Your task to perform on an android device: allow cookies in the chrome app Image 0: 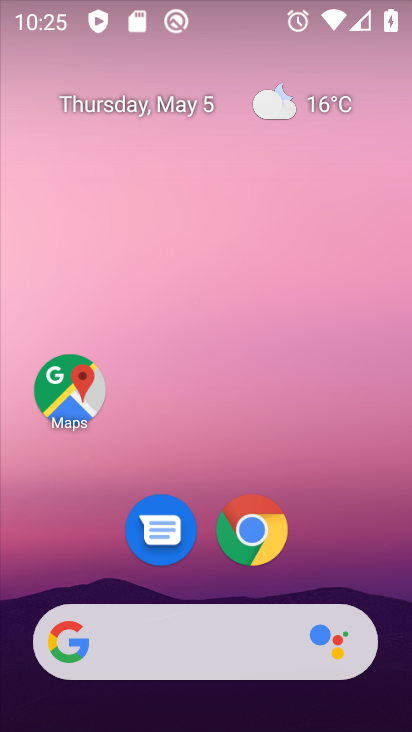
Step 0: drag from (298, 546) to (285, 50)
Your task to perform on an android device: allow cookies in the chrome app Image 1: 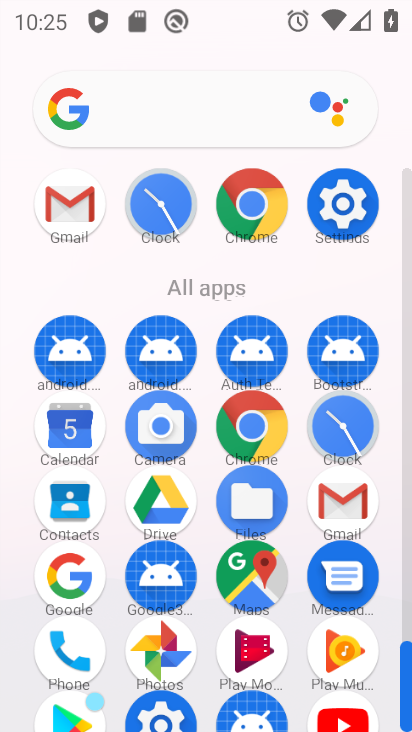
Step 1: click (247, 214)
Your task to perform on an android device: allow cookies in the chrome app Image 2: 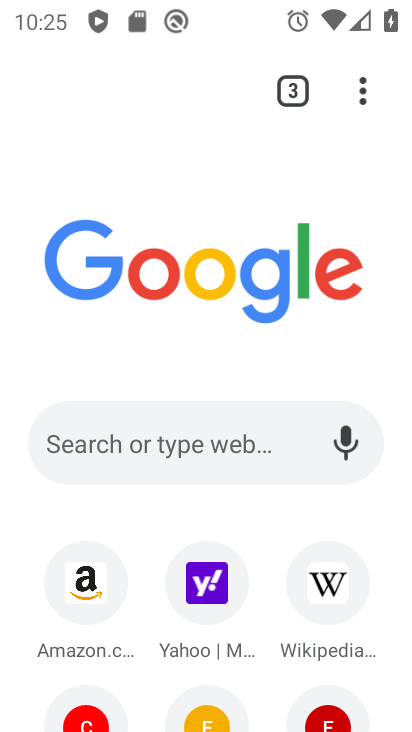
Step 2: drag from (377, 92) to (110, 562)
Your task to perform on an android device: allow cookies in the chrome app Image 3: 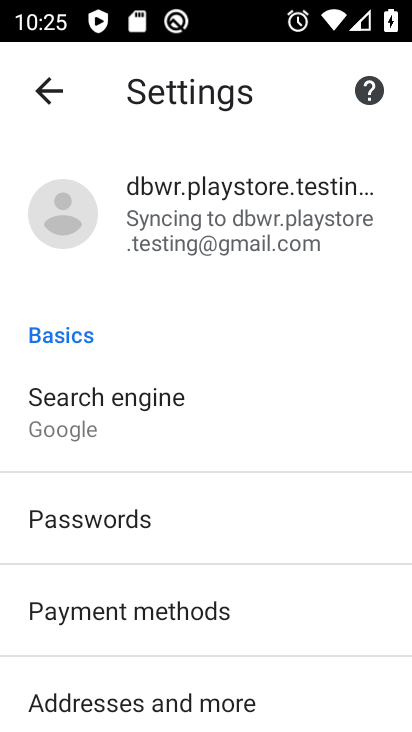
Step 3: drag from (148, 641) to (139, 293)
Your task to perform on an android device: allow cookies in the chrome app Image 4: 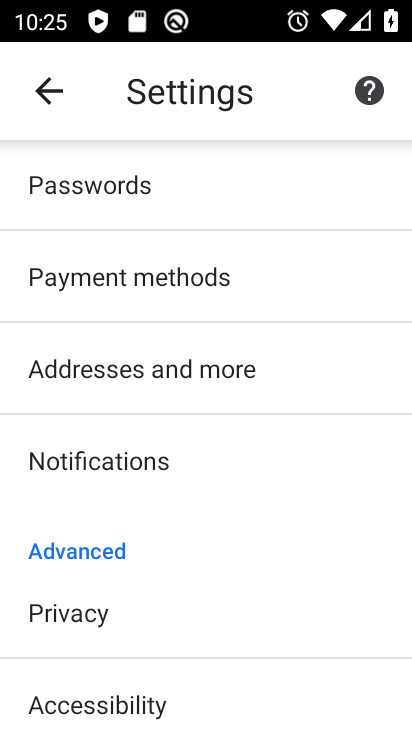
Step 4: drag from (199, 510) to (159, 163)
Your task to perform on an android device: allow cookies in the chrome app Image 5: 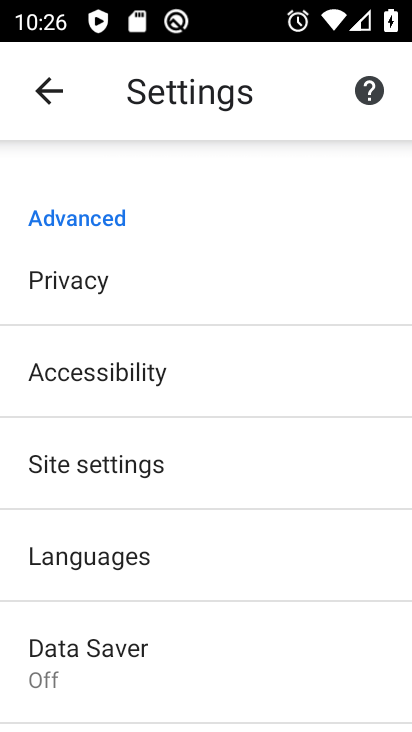
Step 5: drag from (181, 639) to (222, 354)
Your task to perform on an android device: allow cookies in the chrome app Image 6: 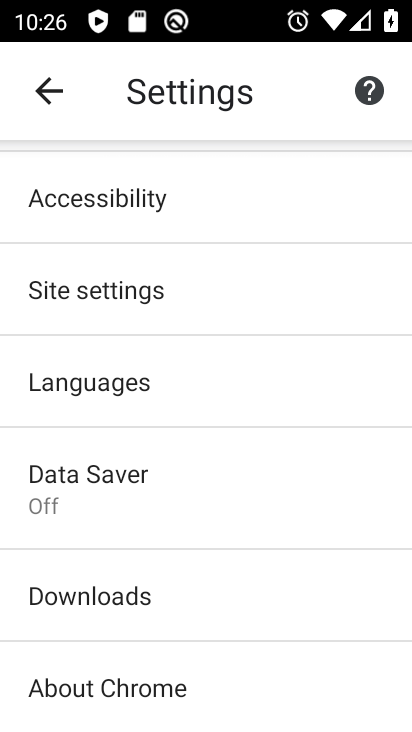
Step 6: drag from (195, 598) to (206, 249)
Your task to perform on an android device: allow cookies in the chrome app Image 7: 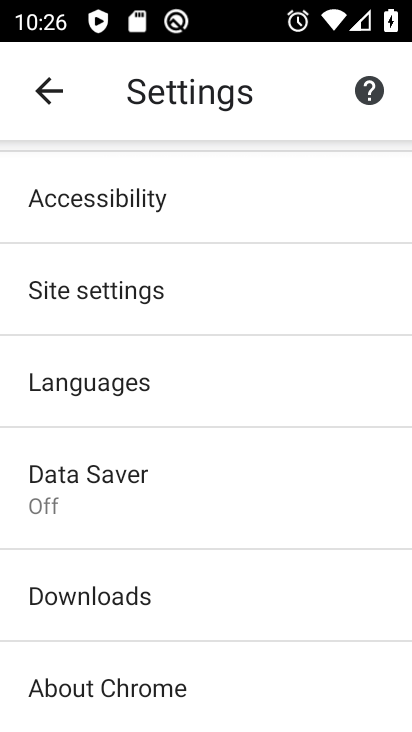
Step 7: drag from (222, 571) to (242, 275)
Your task to perform on an android device: allow cookies in the chrome app Image 8: 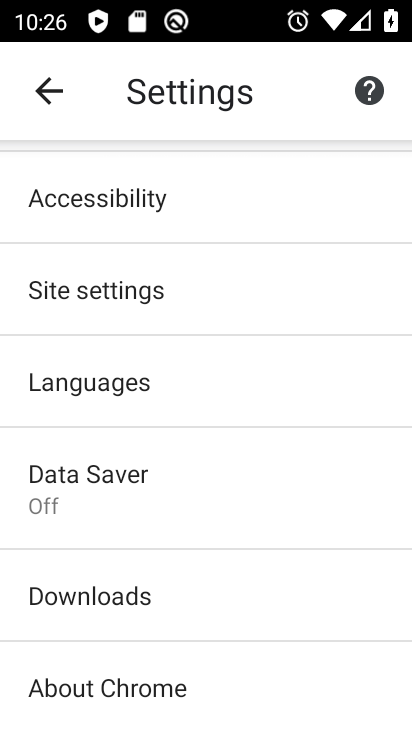
Step 8: click (120, 287)
Your task to perform on an android device: allow cookies in the chrome app Image 9: 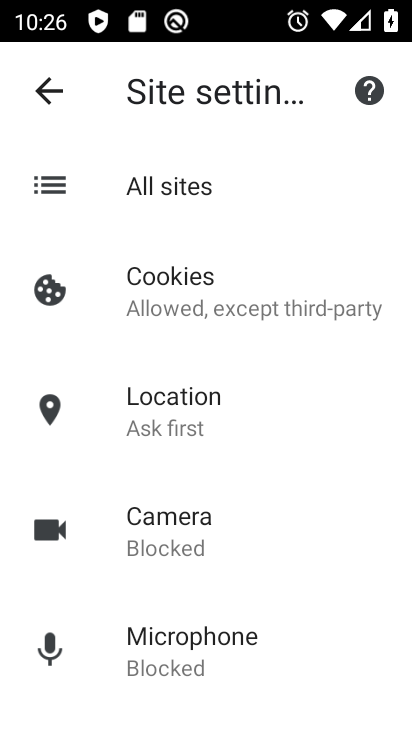
Step 9: click (164, 292)
Your task to perform on an android device: allow cookies in the chrome app Image 10: 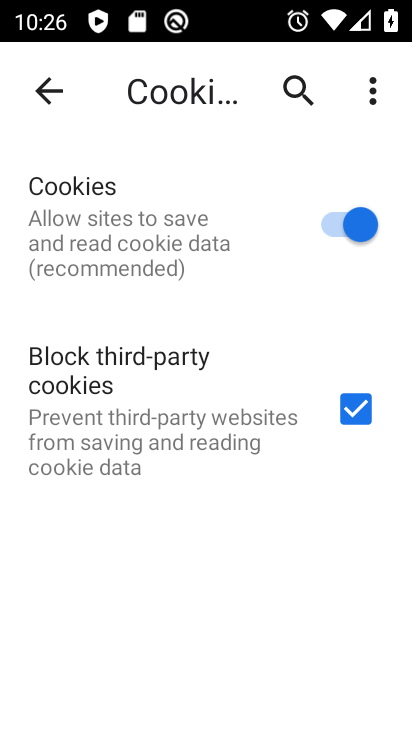
Step 10: task complete